Your task to perform on an android device: Go to Maps Image 0: 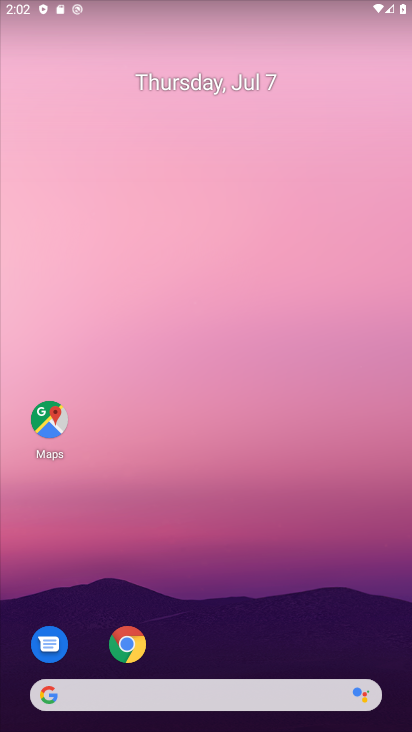
Step 0: click (50, 424)
Your task to perform on an android device: Go to Maps Image 1: 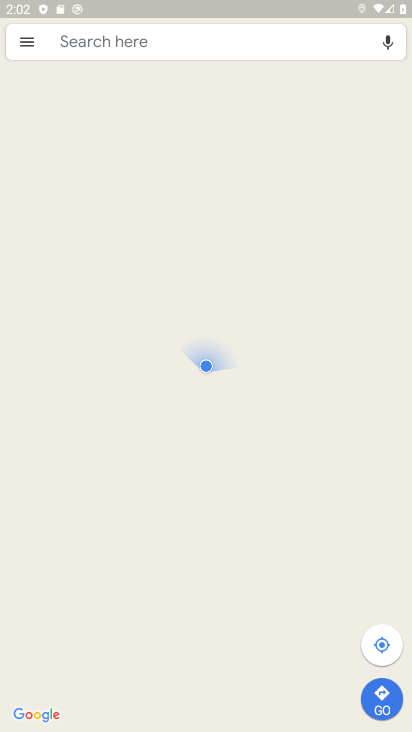
Step 1: task complete